Your task to perform on an android device: change text size in settings app Image 0: 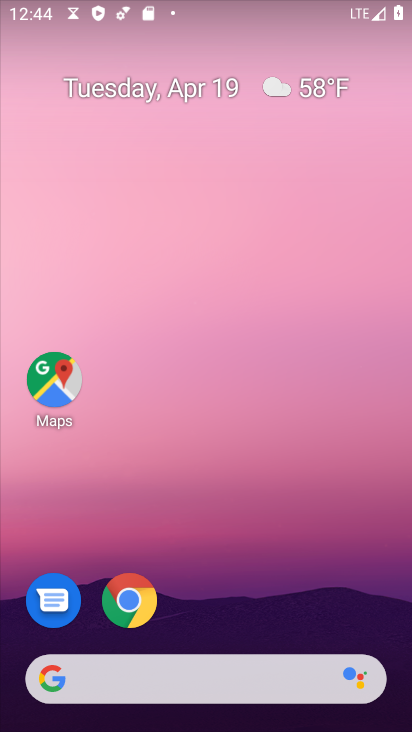
Step 0: drag from (159, 650) to (144, 295)
Your task to perform on an android device: change text size in settings app Image 1: 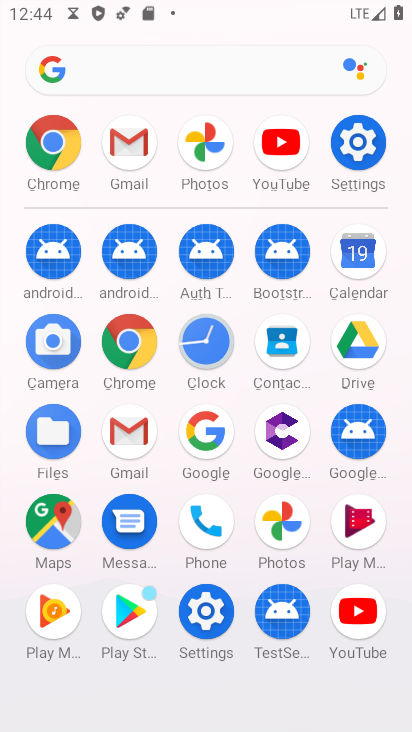
Step 1: click (218, 620)
Your task to perform on an android device: change text size in settings app Image 2: 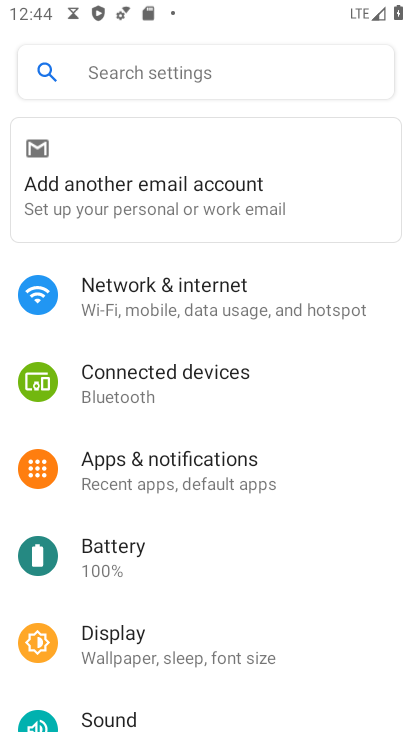
Step 2: drag from (222, 652) to (205, 258)
Your task to perform on an android device: change text size in settings app Image 3: 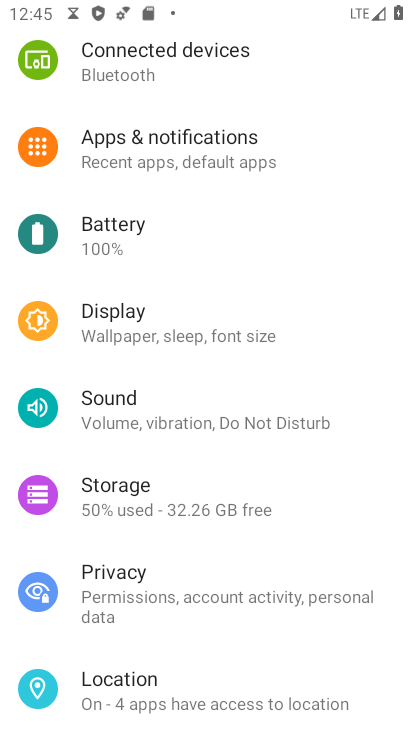
Step 3: click (153, 340)
Your task to perform on an android device: change text size in settings app Image 4: 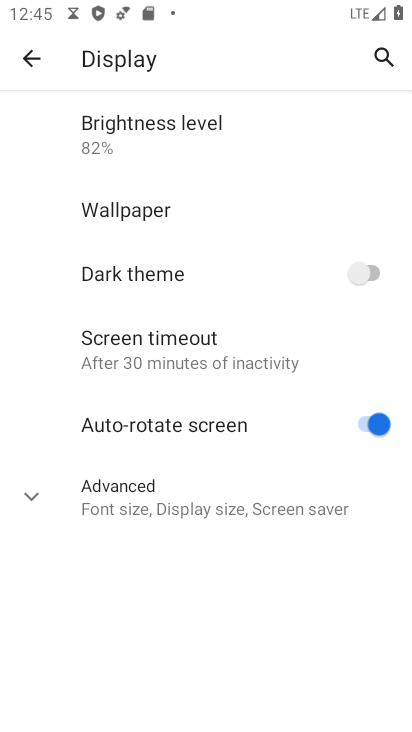
Step 4: click (122, 501)
Your task to perform on an android device: change text size in settings app Image 5: 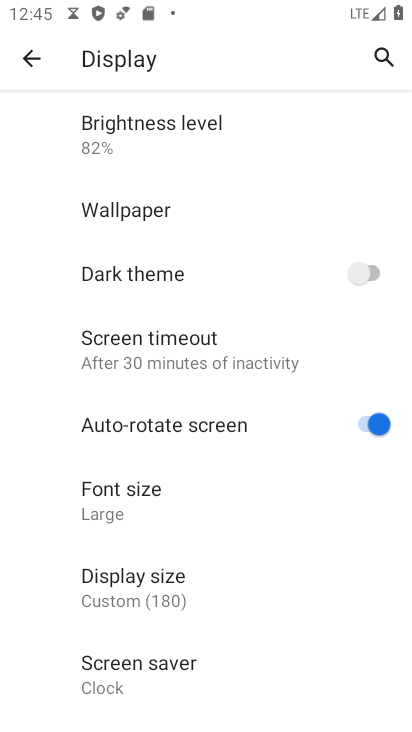
Step 5: click (159, 502)
Your task to perform on an android device: change text size in settings app Image 6: 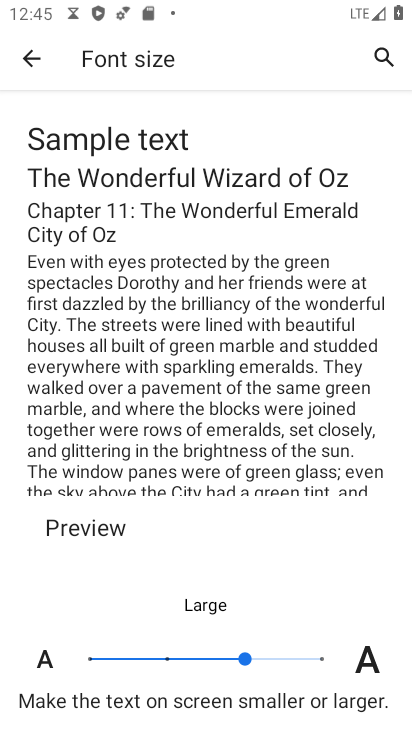
Step 6: click (167, 663)
Your task to perform on an android device: change text size in settings app Image 7: 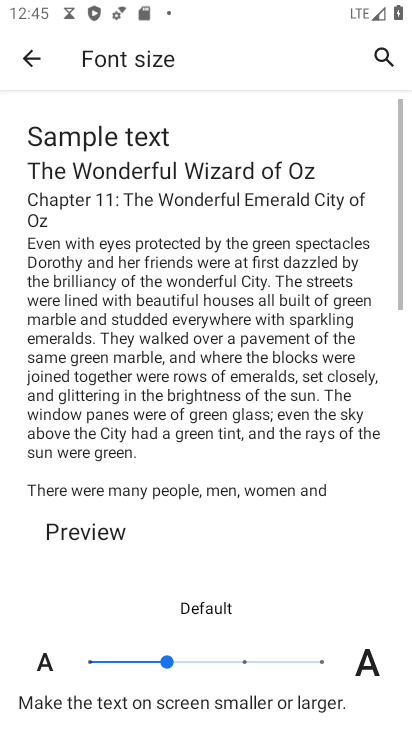
Step 7: task complete